Your task to perform on an android device: Open Yahoo.com Image 0: 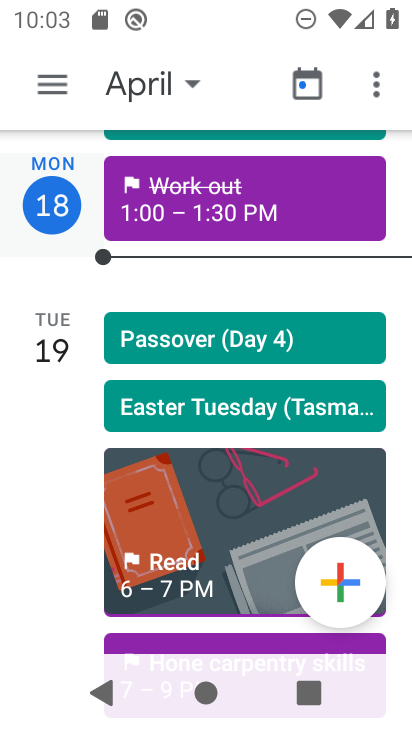
Step 0: press home button
Your task to perform on an android device: Open Yahoo.com Image 1: 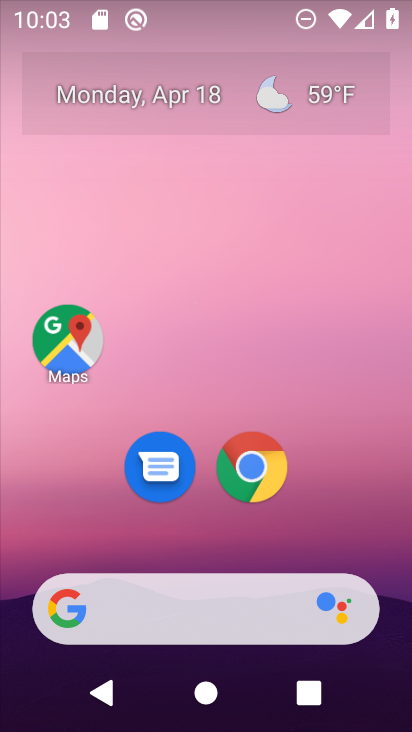
Step 1: click (258, 470)
Your task to perform on an android device: Open Yahoo.com Image 2: 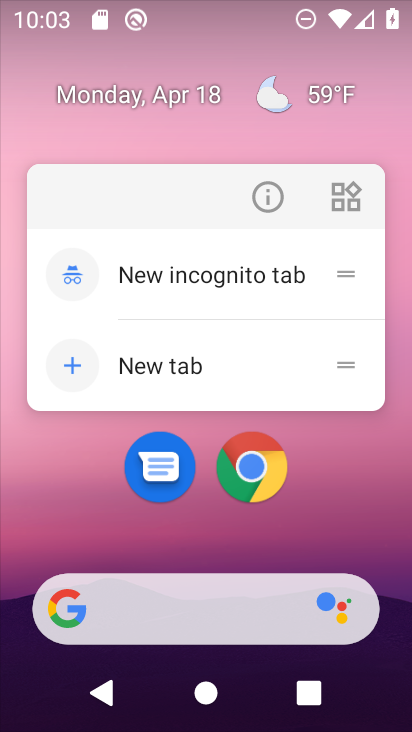
Step 2: click (258, 470)
Your task to perform on an android device: Open Yahoo.com Image 3: 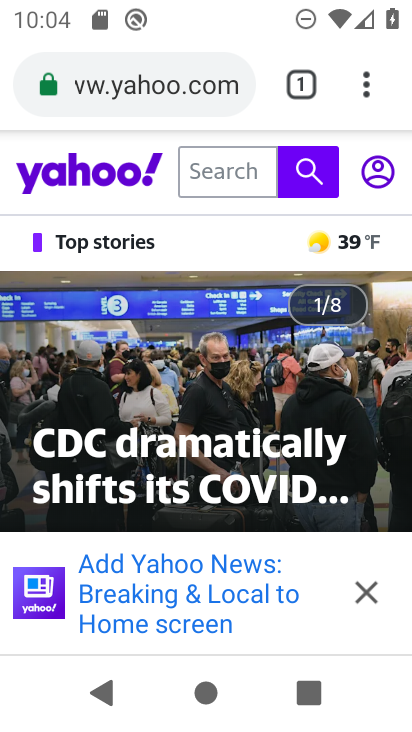
Step 3: task complete